Your task to perform on an android device: Open Google Maps Image 0: 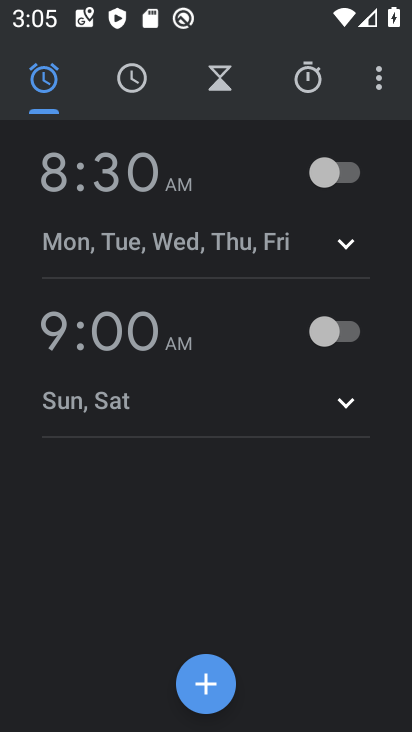
Step 0: press home button
Your task to perform on an android device: Open Google Maps Image 1: 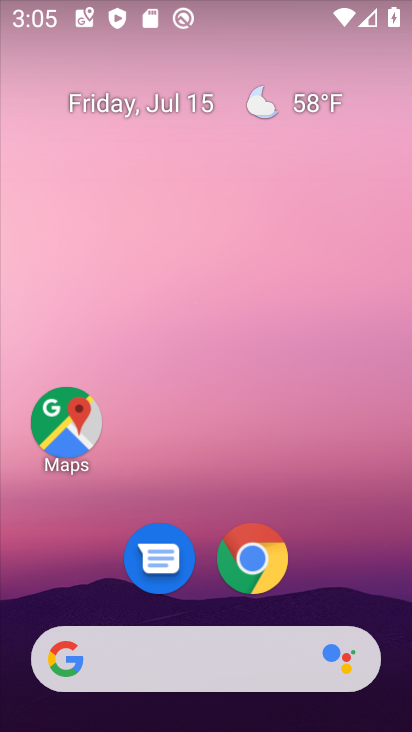
Step 1: drag from (348, 569) to (331, 68)
Your task to perform on an android device: Open Google Maps Image 2: 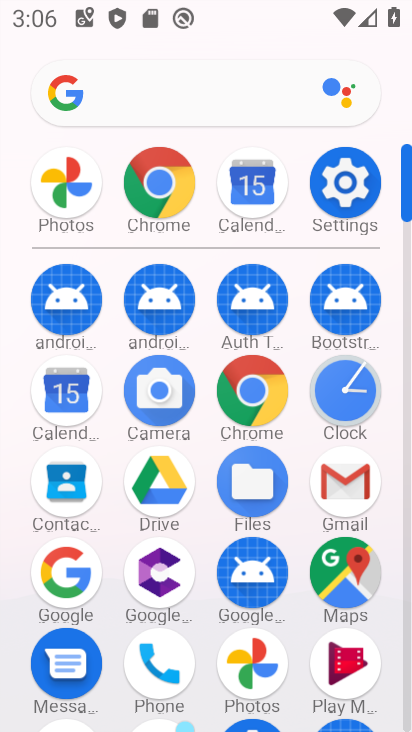
Step 2: click (350, 575)
Your task to perform on an android device: Open Google Maps Image 3: 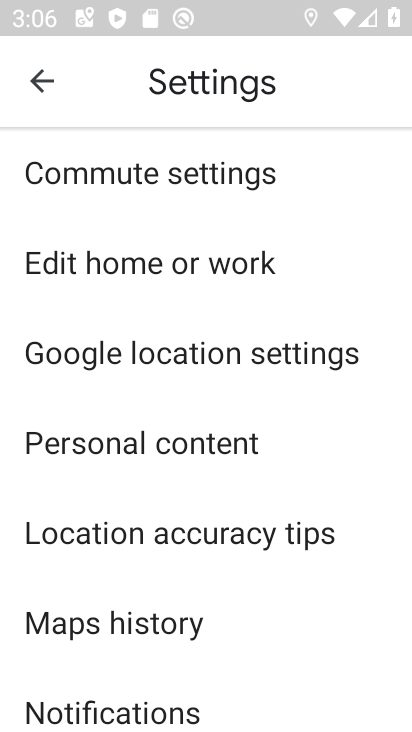
Step 3: task complete